Your task to perform on an android device: Open display settings Image 0: 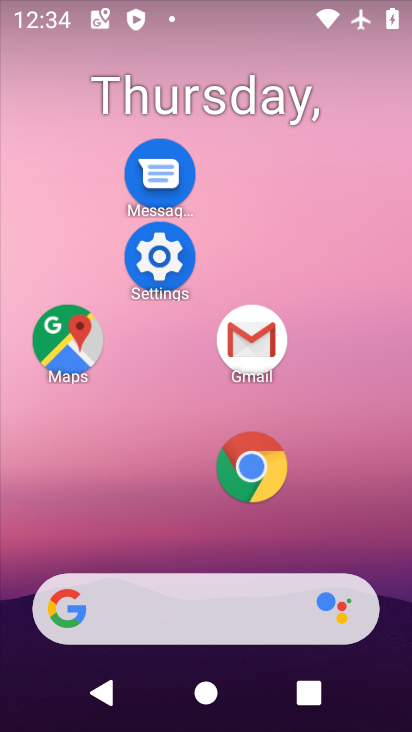
Step 0: click (213, 238)
Your task to perform on an android device: Open display settings Image 1: 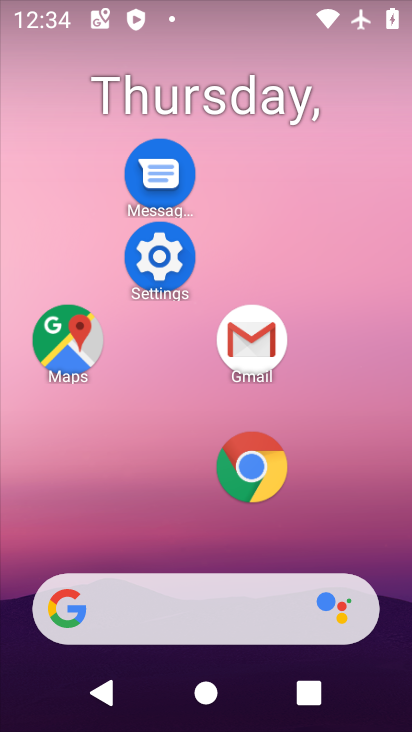
Step 1: click (162, 258)
Your task to perform on an android device: Open display settings Image 2: 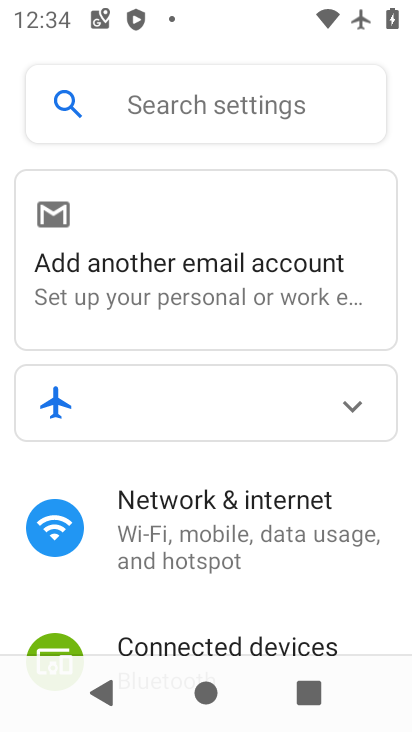
Step 2: drag from (209, 545) to (317, 138)
Your task to perform on an android device: Open display settings Image 3: 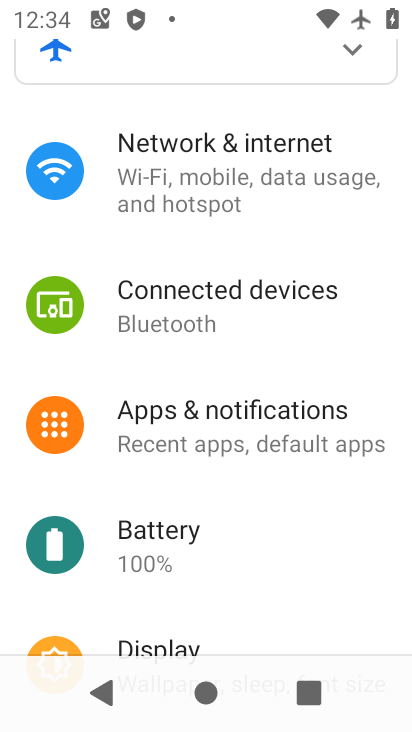
Step 3: drag from (215, 555) to (284, 179)
Your task to perform on an android device: Open display settings Image 4: 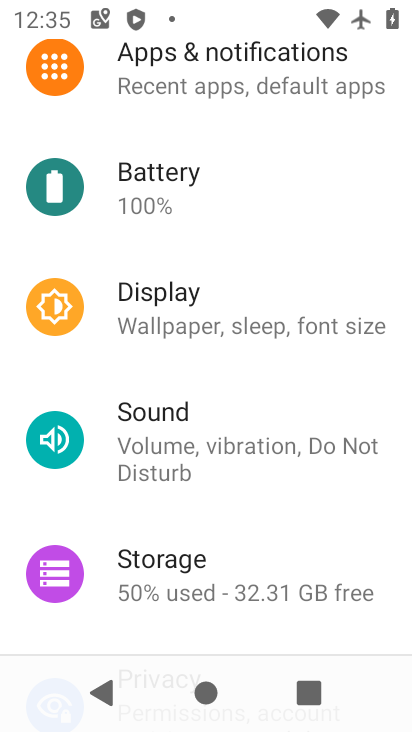
Step 4: click (179, 315)
Your task to perform on an android device: Open display settings Image 5: 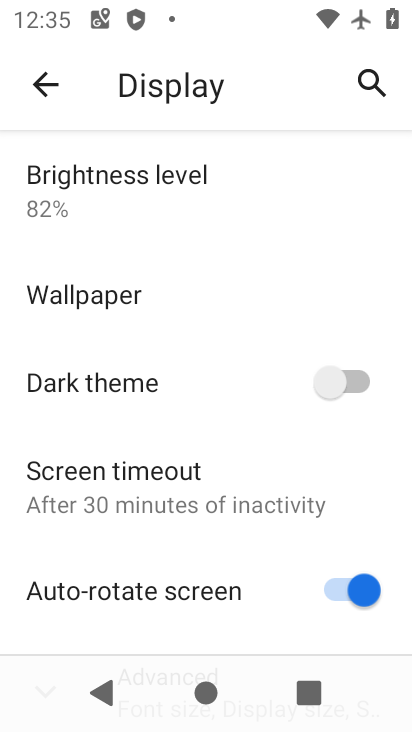
Step 5: task complete